Your task to perform on an android device: Open Google Maps and go to "Timeline" Image 0: 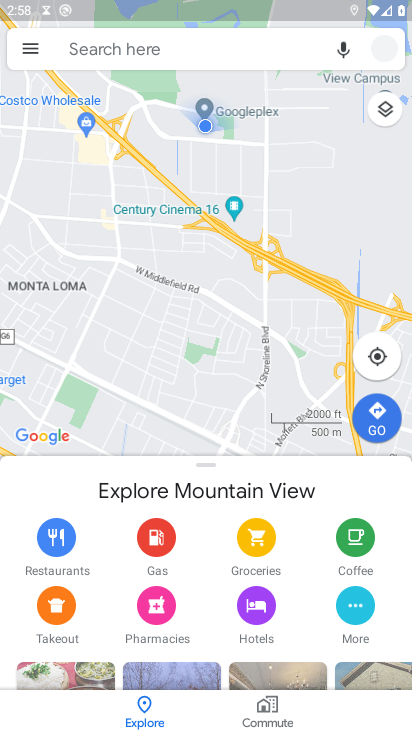
Step 0: press home button
Your task to perform on an android device: Open Google Maps and go to "Timeline" Image 1: 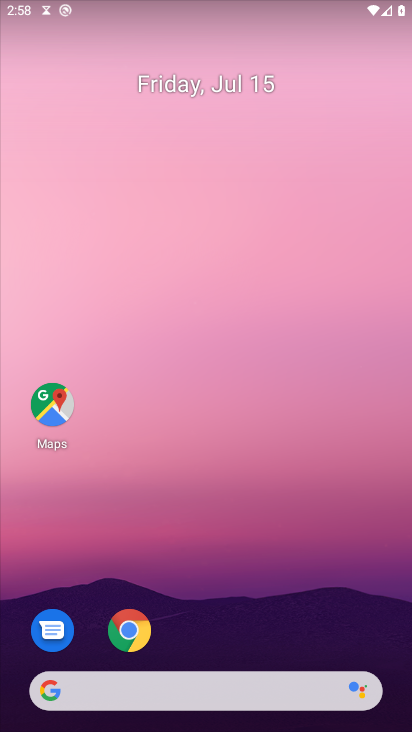
Step 1: drag from (220, 649) to (266, 1)
Your task to perform on an android device: Open Google Maps and go to "Timeline" Image 2: 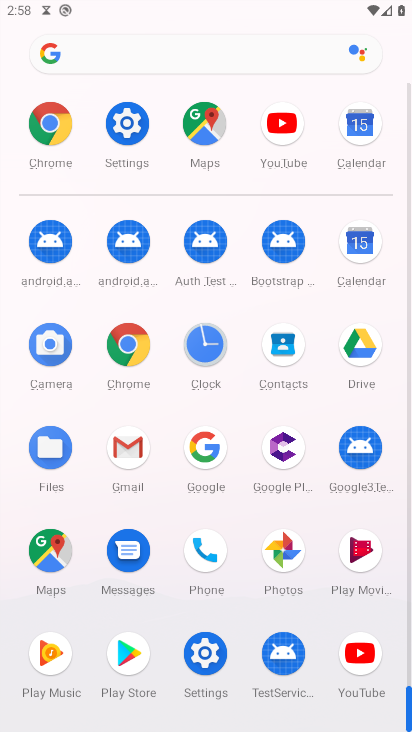
Step 2: click (50, 554)
Your task to perform on an android device: Open Google Maps and go to "Timeline" Image 3: 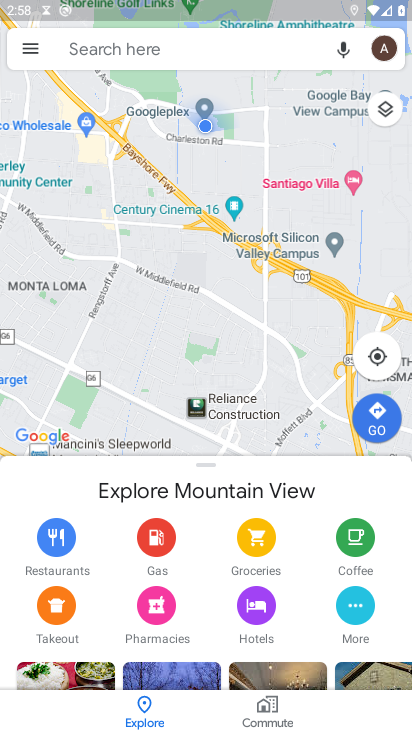
Step 3: click (28, 49)
Your task to perform on an android device: Open Google Maps and go to "Timeline" Image 4: 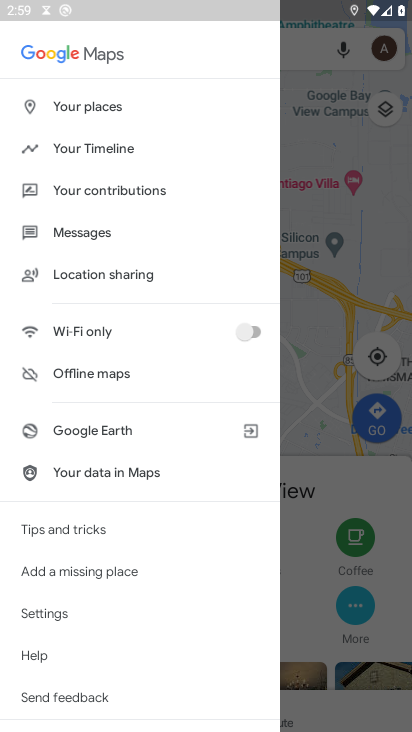
Step 4: click (94, 155)
Your task to perform on an android device: Open Google Maps and go to "Timeline" Image 5: 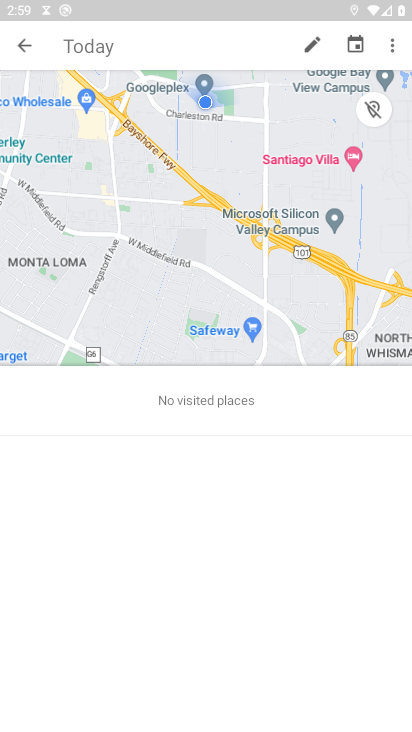
Step 5: task complete